Your task to perform on an android device: Is it going to rain tomorrow? Image 0: 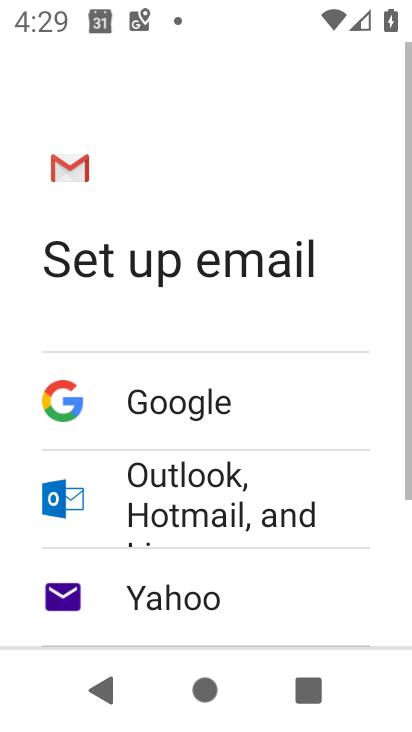
Step 0: press home button
Your task to perform on an android device: Is it going to rain tomorrow? Image 1: 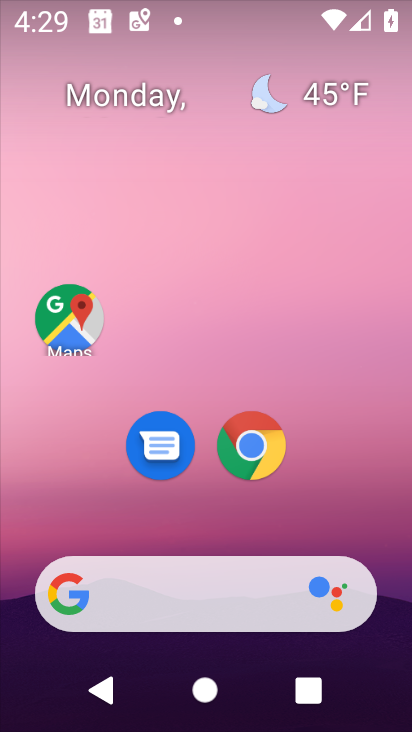
Step 1: click (187, 574)
Your task to perform on an android device: Is it going to rain tomorrow? Image 2: 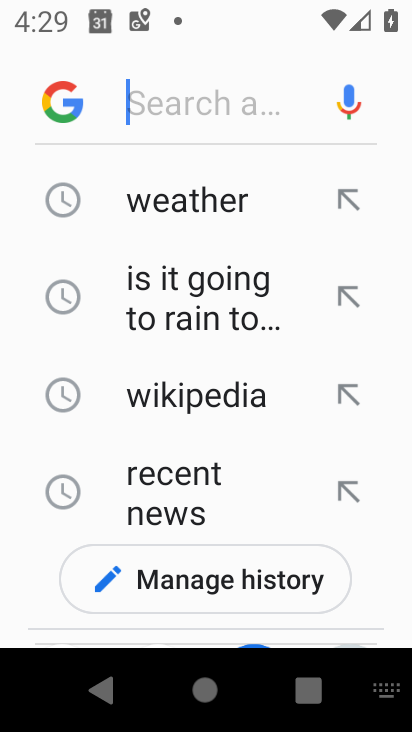
Step 2: type "is it going to rain tomorrow"
Your task to perform on an android device: Is it going to rain tomorrow? Image 3: 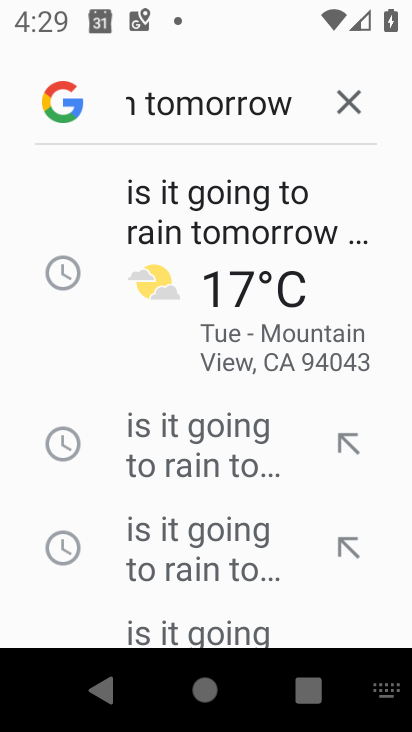
Step 3: click (209, 186)
Your task to perform on an android device: Is it going to rain tomorrow? Image 4: 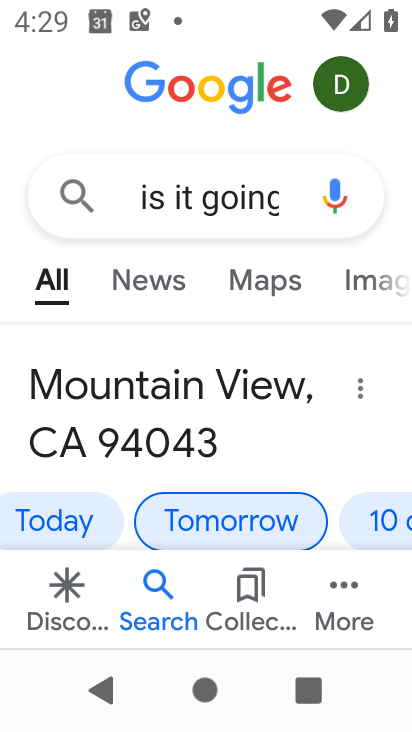
Step 4: task complete